Your task to perform on an android device: Clear the shopping cart on ebay. Add "razer blade" to the cart on ebay Image 0: 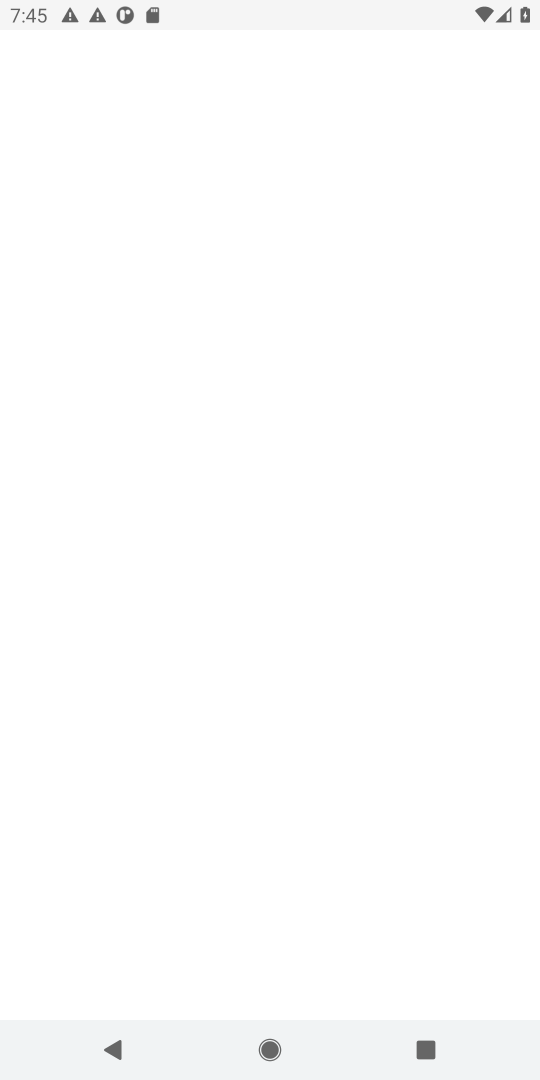
Step 0: press home button
Your task to perform on an android device: Clear the shopping cart on ebay. Add "razer blade" to the cart on ebay Image 1: 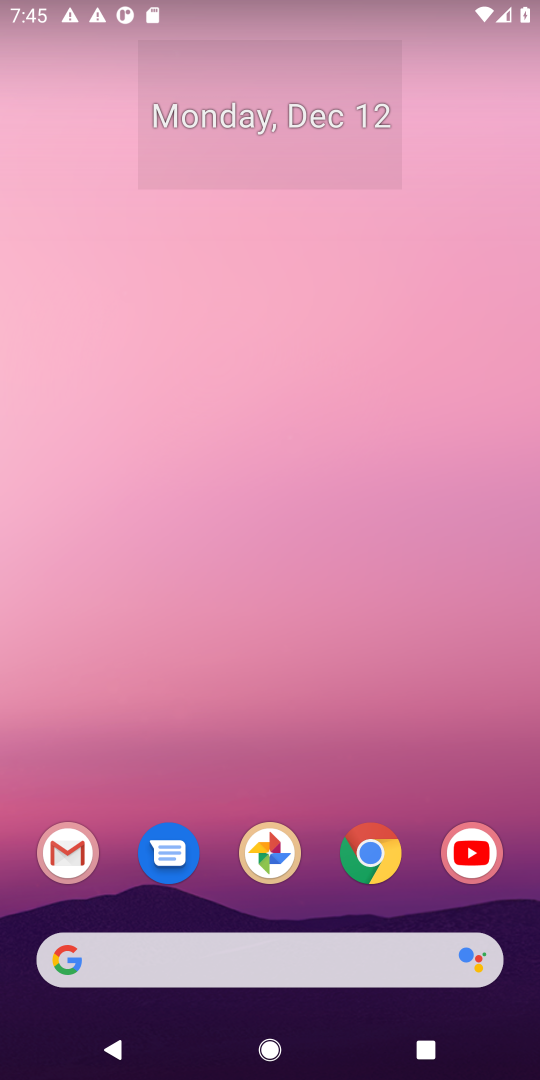
Step 1: click (368, 850)
Your task to perform on an android device: Clear the shopping cart on ebay. Add "razer blade" to the cart on ebay Image 2: 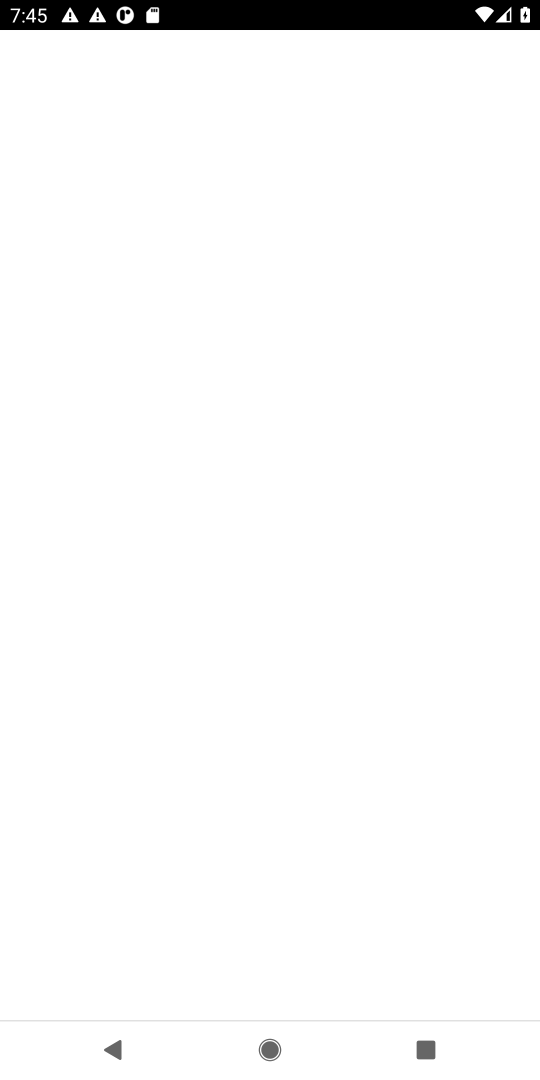
Step 2: task complete